Your task to perform on an android device: Open the web browser Image 0: 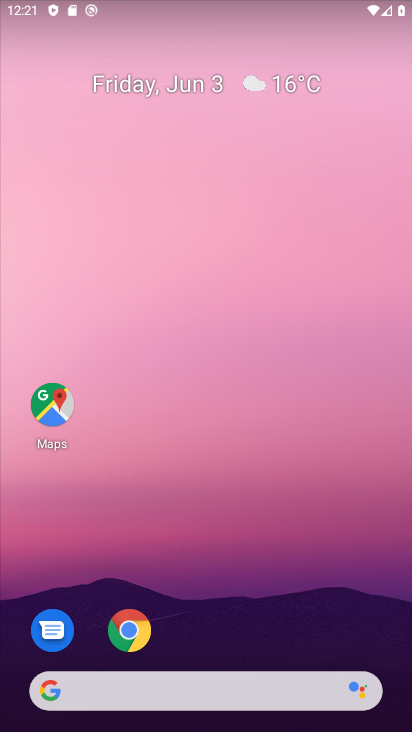
Step 0: press home button
Your task to perform on an android device: Open the web browser Image 1: 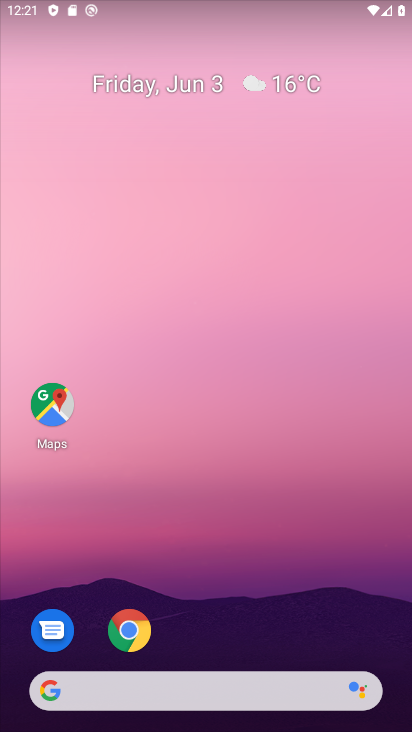
Step 1: click (149, 679)
Your task to perform on an android device: Open the web browser Image 2: 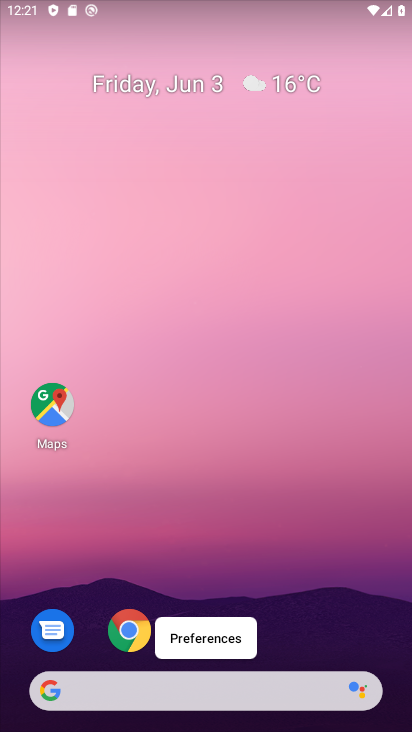
Step 2: click (124, 685)
Your task to perform on an android device: Open the web browser Image 3: 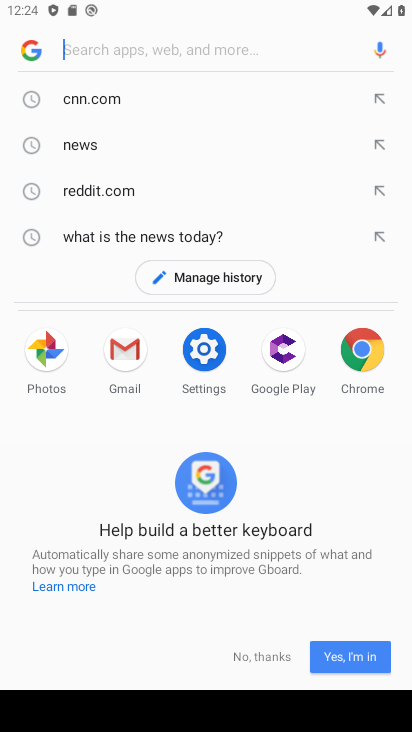
Step 3: task complete